Your task to perform on an android device: turn pop-ups on in chrome Image 0: 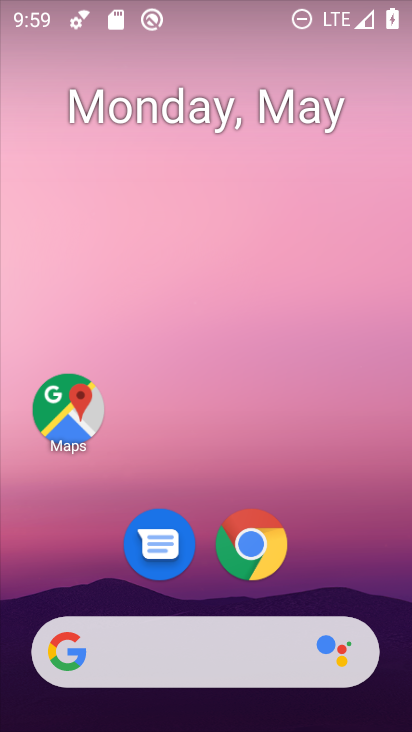
Step 0: drag from (374, 555) to (327, 95)
Your task to perform on an android device: turn pop-ups on in chrome Image 1: 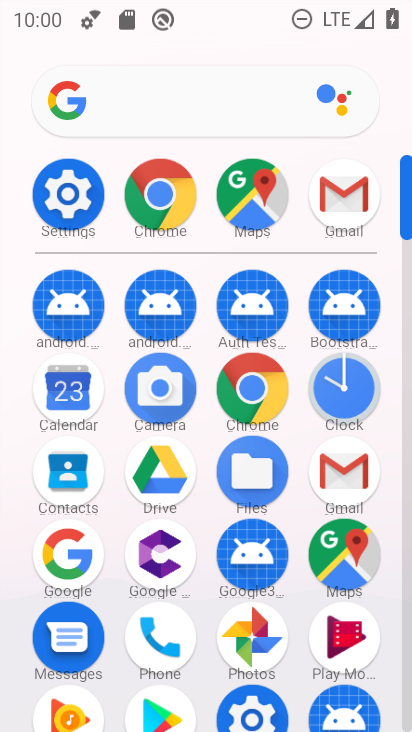
Step 1: click (251, 388)
Your task to perform on an android device: turn pop-ups on in chrome Image 2: 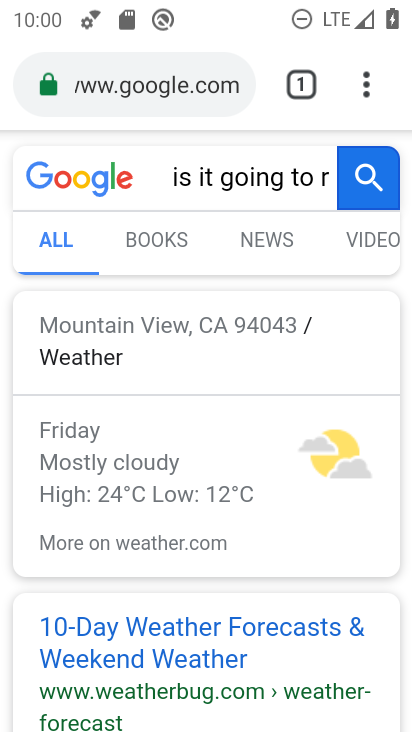
Step 2: drag from (354, 87) to (125, 600)
Your task to perform on an android device: turn pop-ups on in chrome Image 3: 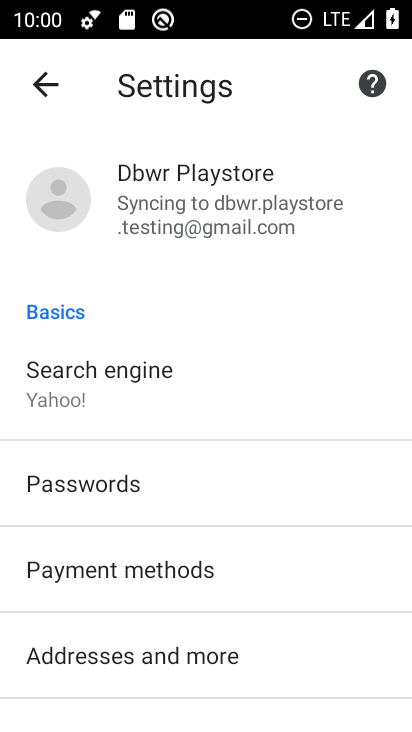
Step 3: drag from (290, 629) to (269, 259)
Your task to perform on an android device: turn pop-ups on in chrome Image 4: 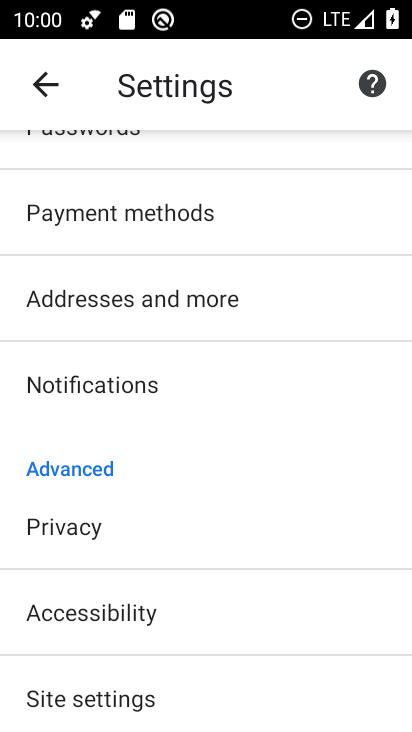
Step 4: drag from (271, 599) to (271, 246)
Your task to perform on an android device: turn pop-ups on in chrome Image 5: 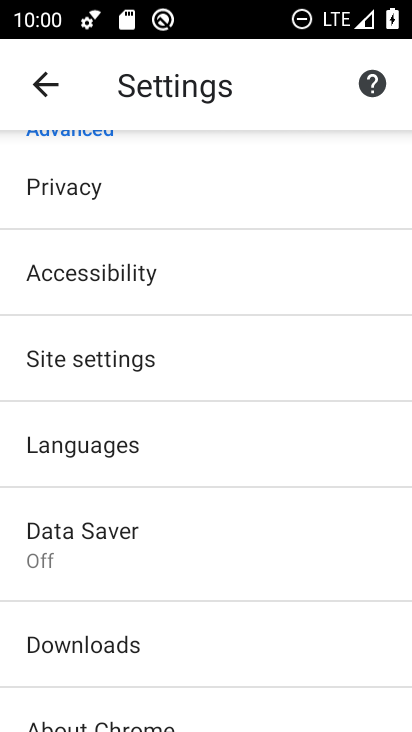
Step 5: click (149, 347)
Your task to perform on an android device: turn pop-ups on in chrome Image 6: 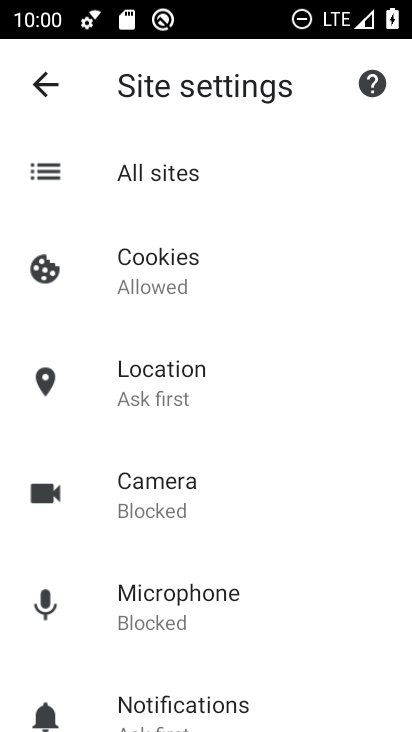
Step 6: drag from (254, 685) to (301, 226)
Your task to perform on an android device: turn pop-ups on in chrome Image 7: 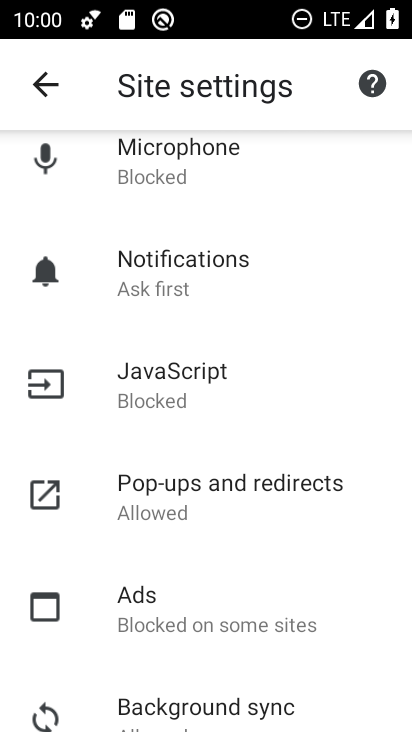
Step 7: click (259, 477)
Your task to perform on an android device: turn pop-ups on in chrome Image 8: 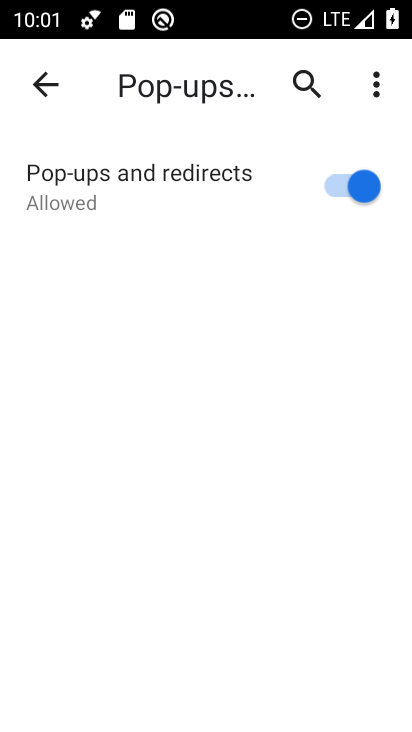
Step 8: task complete